Your task to perform on an android device: turn on location history Image 0: 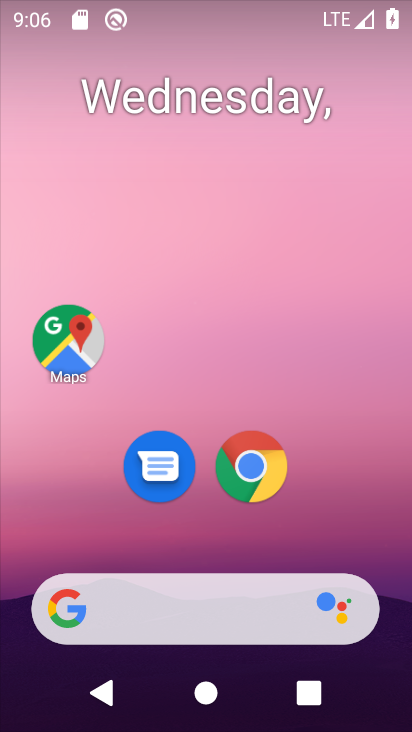
Step 0: drag from (225, 720) to (229, 173)
Your task to perform on an android device: turn on location history Image 1: 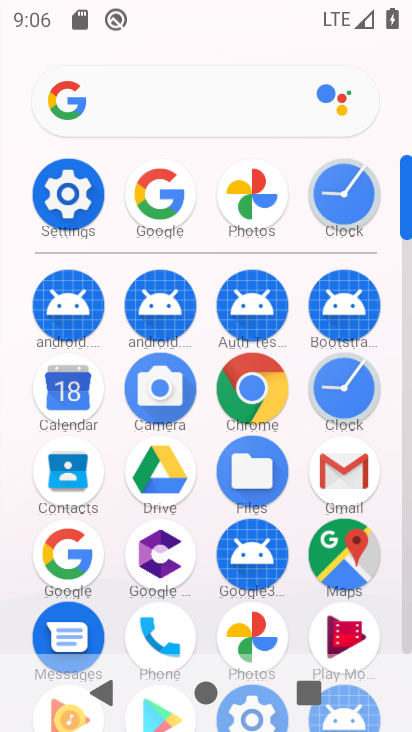
Step 1: click (74, 192)
Your task to perform on an android device: turn on location history Image 2: 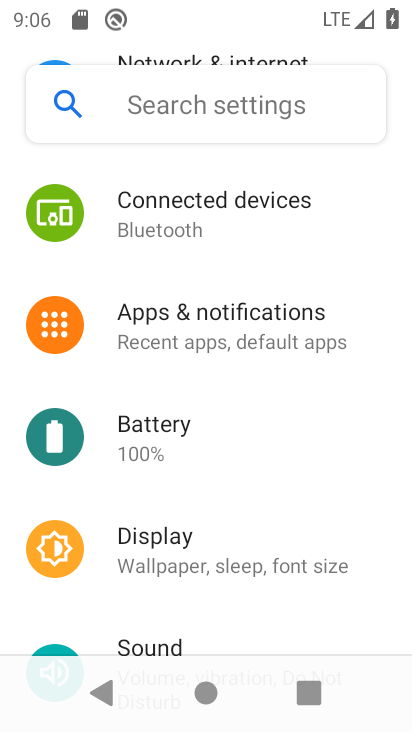
Step 2: drag from (156, 609) to (181, 141)
Your task to perform on an android device: turn on location history Image 3: 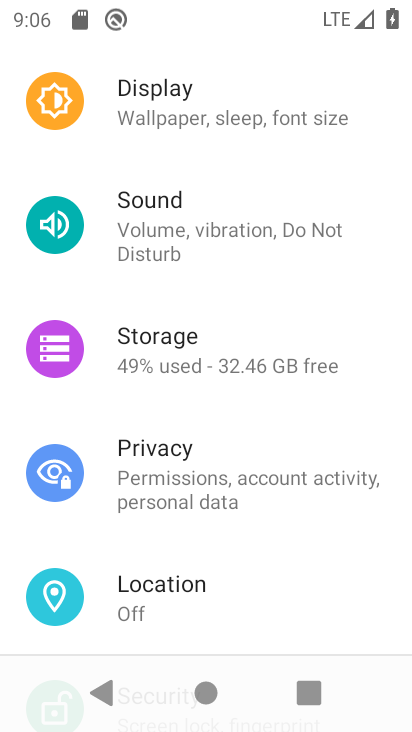
Step 3: click (153, 583)
Your task to perform on an android device: turn on location history Image 4: 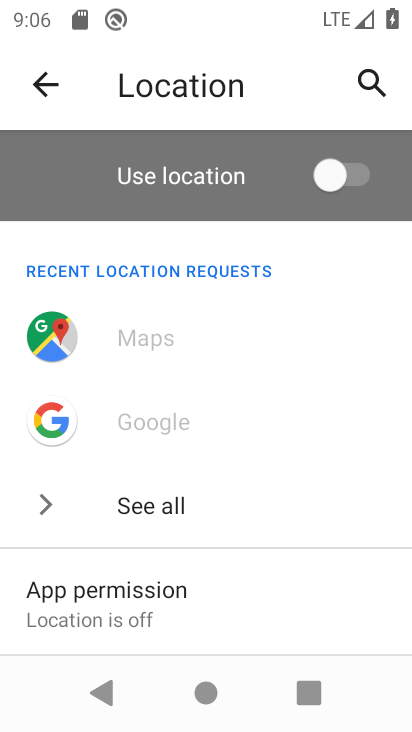
Step 4: drag from (161, 608) to (160, 174)
Your task to perform on an android device: turn on location history Image 5: 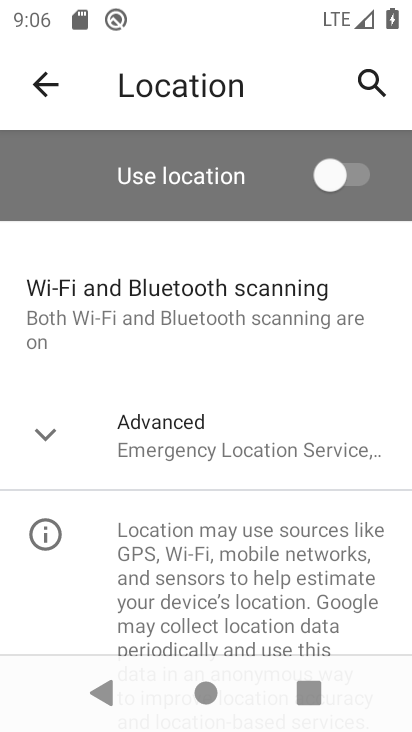
Step 5: click (142, 430)
Your task to perform on an android device: turn on location history Image 6: 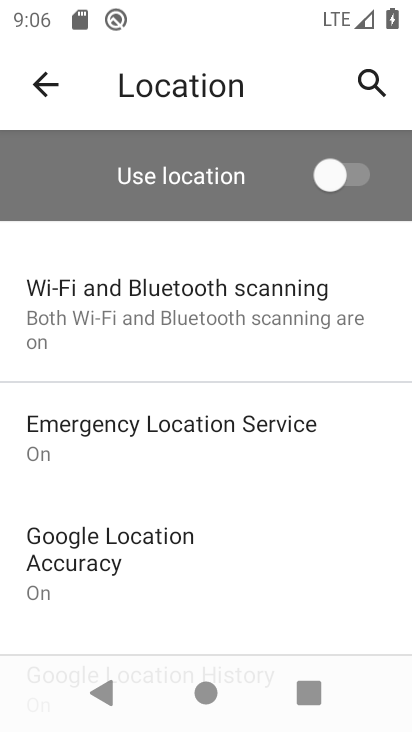
Step 6: drag from (132, 624) to (137, 257)
Your task to perform on an android device: turn on location history Image 7: 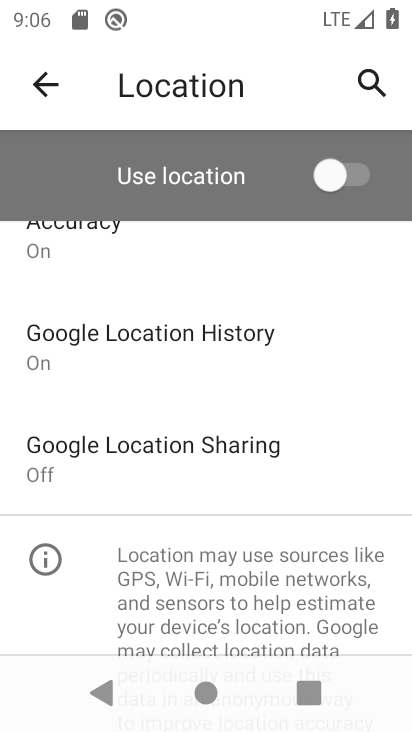
Step 7: click (183, 331)
Your task to perform on an android device: turn on location history Image 8: 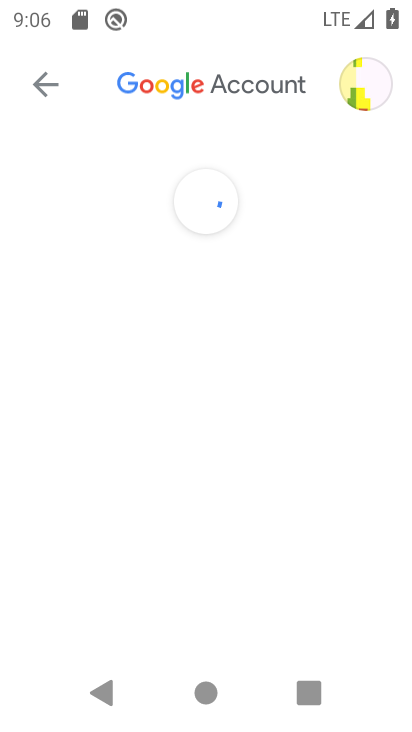
Step 8: drag from (173, 627) to (184, 123)
Your task to perform on an android device: turn on location history Image 9: 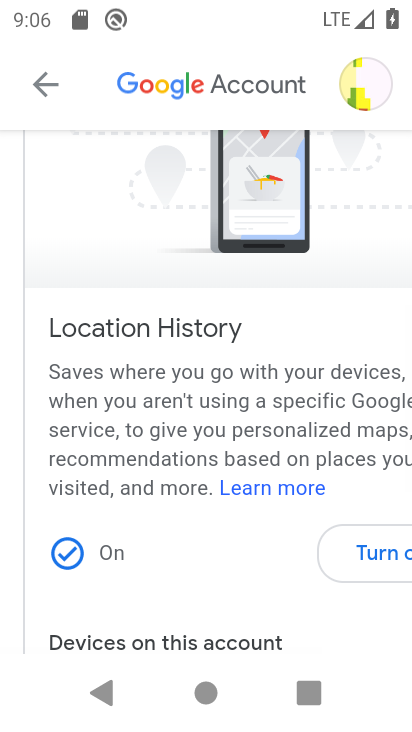
Step 9: drag from (209, 602) to (214, 364)
Your task to perform on an android device: turn on location history Image 10: 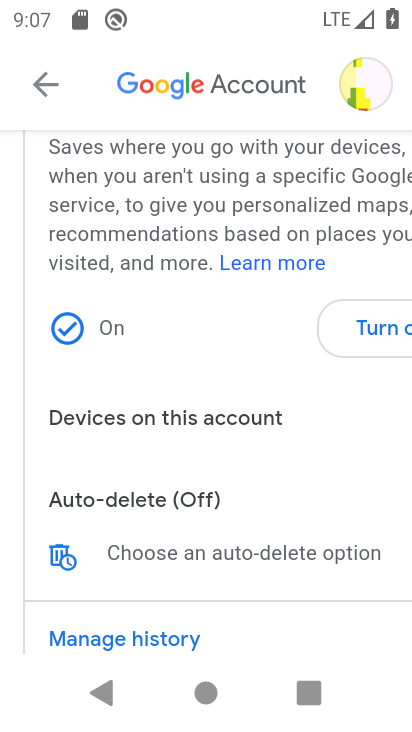
Step 10: click (355, 335)
Your task to perform on an android device: turn on location history Image 11: 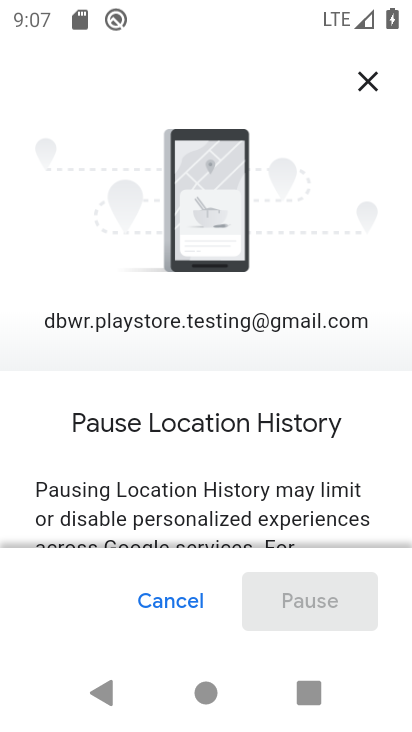
Step 11: drag from (203, 492) to (205, 240)
Your task to perform on an android device: turn on location history Image 12: 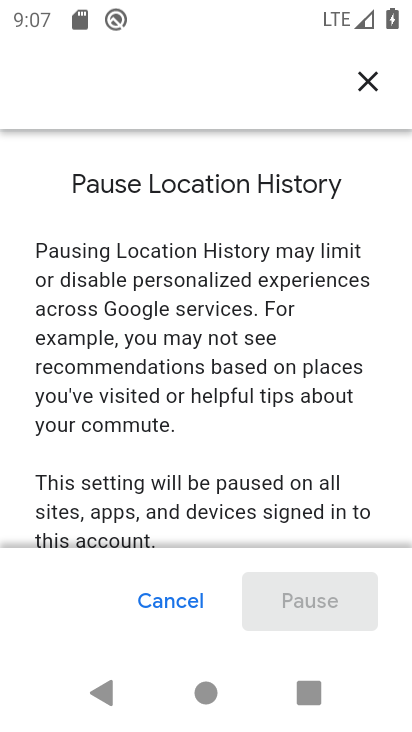
Step 12: drag from (213, 508) to (231, 213)
Your task to perform on an android device: turn on location history Image 13: 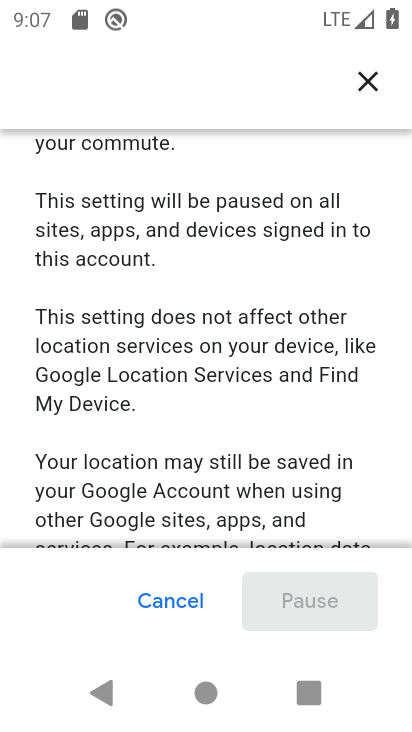
Step 13: drag from (219, 528) to (223, 198)
Your task to perform on an android device: turn on location history Image 14: 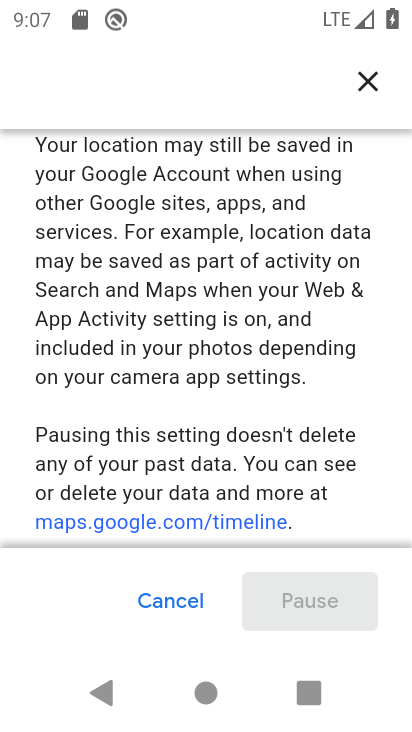
Step 14: drag from (210, 518) to (212, 158)
Your task to perform on an android device: turn on location history Image 15: 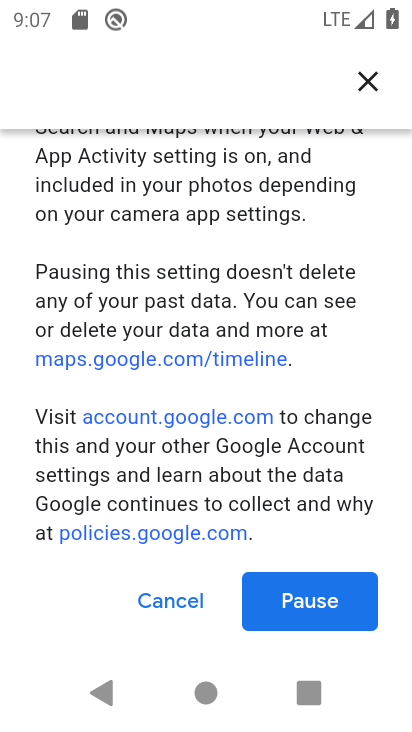
Step 15: click (304, 605)
Your task to perform on an android device: turn on location history Image 16: 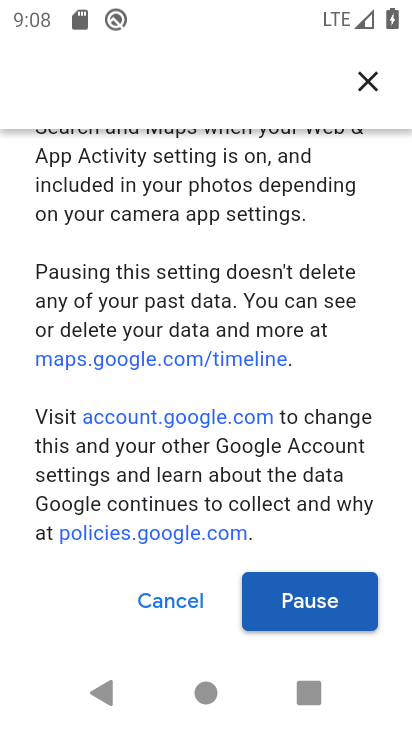
Step 16: click (340, 607)
Your task to perform on an android device: turn on location history Image 17: 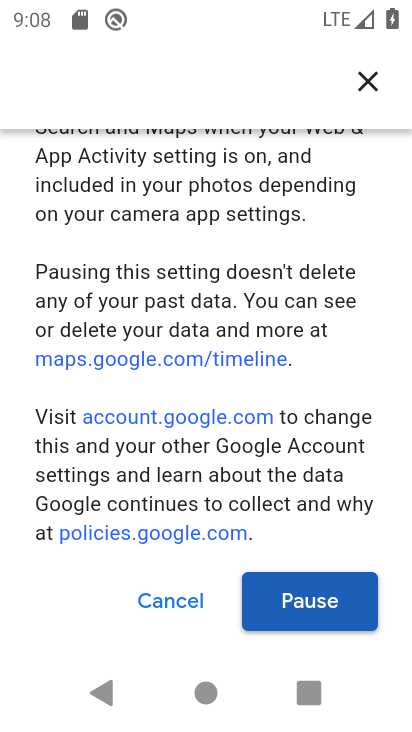
Step 17: click (340, 608)
Your task to perform on an android device: turn on location history Image 18: 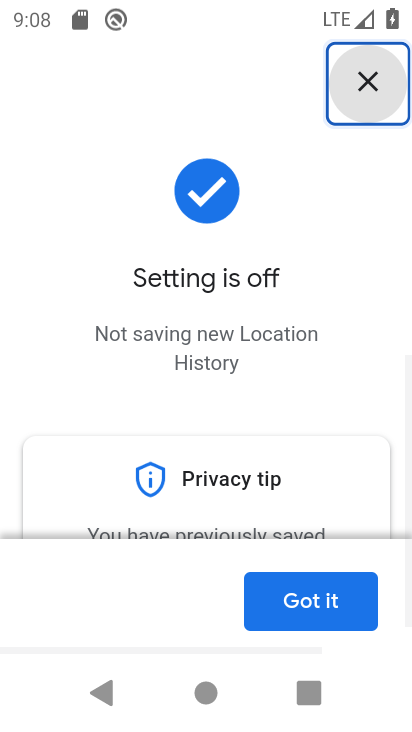
Step 18: task complete